Your task to perform on an android device: change keyboard looks Image 0: 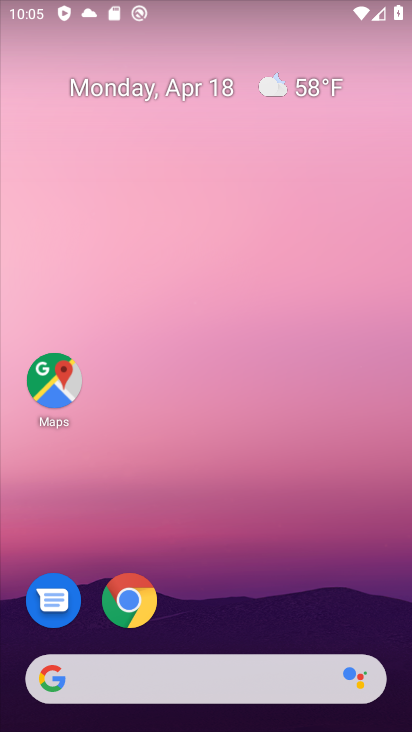
Step 0: drag from (241, 542) to (259, 9)
Your task to perform on an android device: change keyboard looks Image 1: 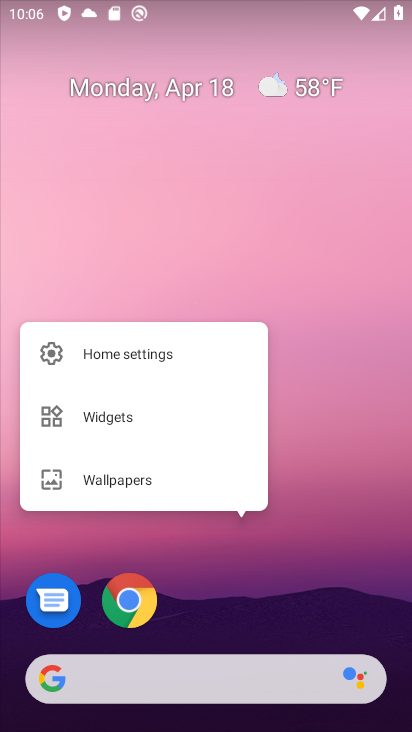
Step 1: drag from (240, 593) to (207, 10)
Your task to perform on an android device: change keyboard looks Image 2: 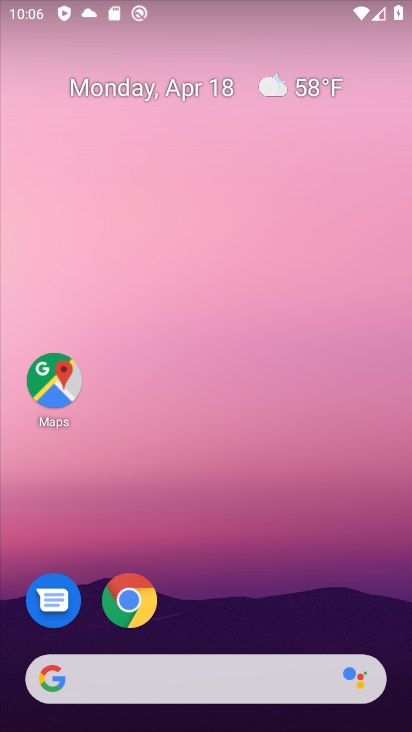
Step 2: drag from (247, 530) to (57, 13)
Your task to perform on an android device: change keyboard looks Image 3: 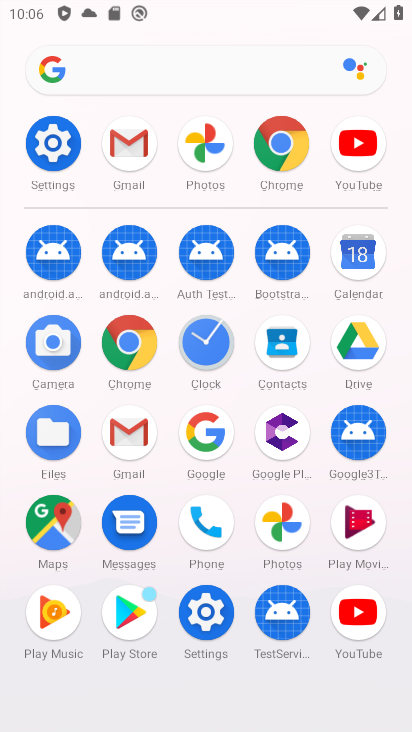
Step 3: click (51, 150)
Your task to perform on an android device: change keyboard looks Image 4: 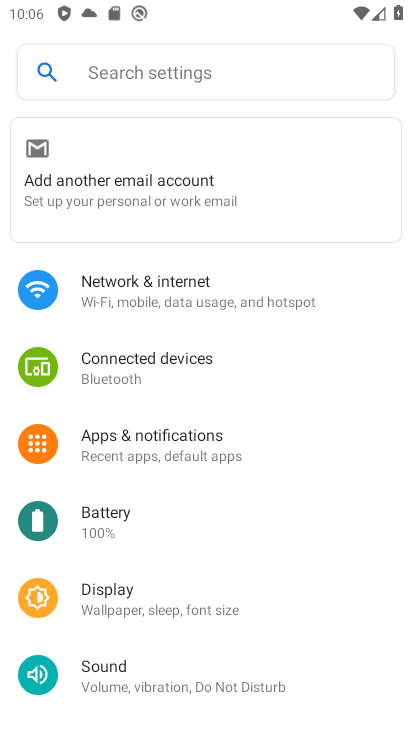
Step 4: drag from (255, 564) to (257, 71)
Your task to perform on an android device: change keyboard looks Image 5: 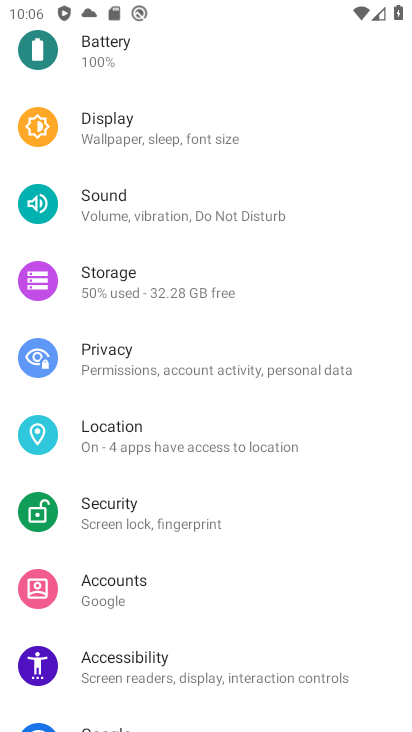
Step 5: drag from (227, 632) to (222, 134)
Your task to perform on an android device: change keyboard looks Image 6: 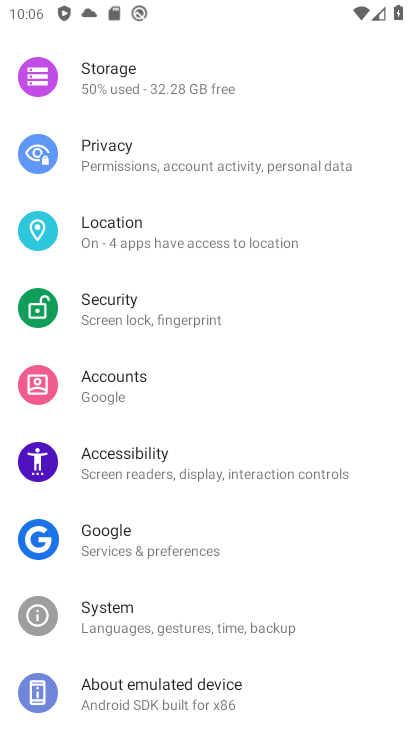
Step 6: click (105, 608)
Your task to perform on an android device: change keyboard looks Image 7: 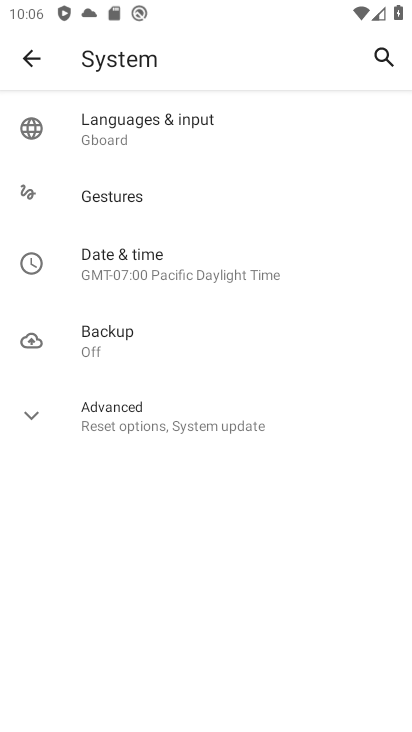
Step 7: click (104, 122)
Your task to perform on an android device: change keyboard looks Image 8: 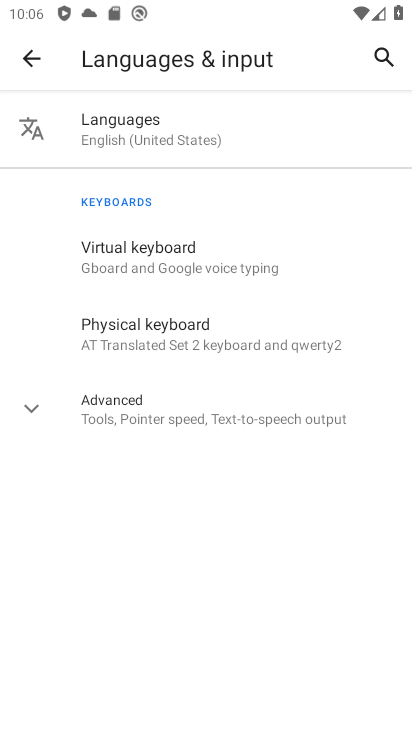
Step 8: click (105, 246)
Your task to perform on an android device: change keyboard looks Image 9: 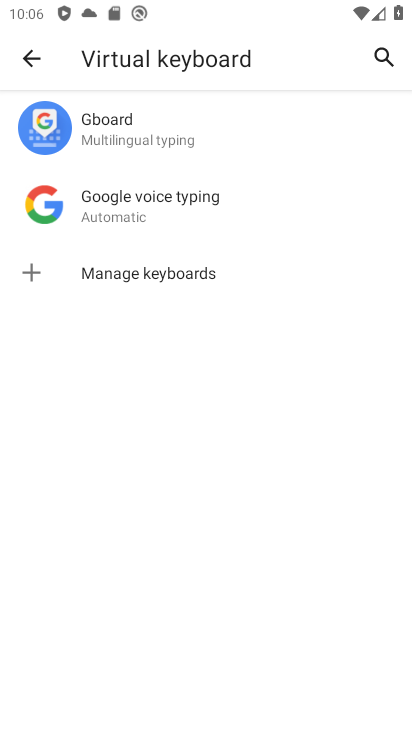
Step 9: click (100, 125)
Your task to perform on an android device: change keyboard looks Image 10: 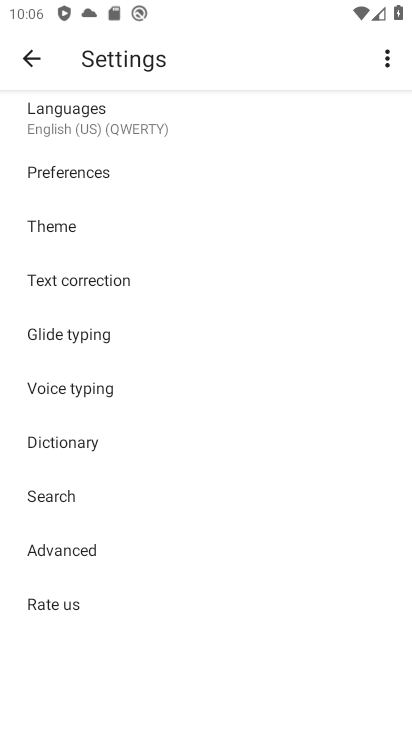
Step 10: click (45, 228)
Your task to perform on an android device: change keyboard looks Image 11: 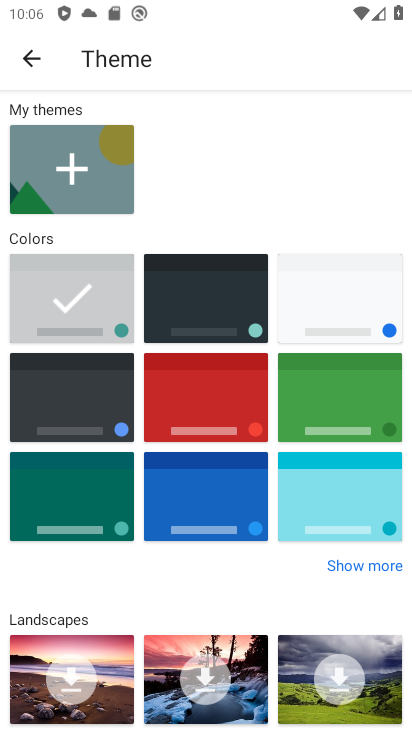
Step 11: click (65, 487)
Your task to perform on an android device: change keyboard looks Image 12: 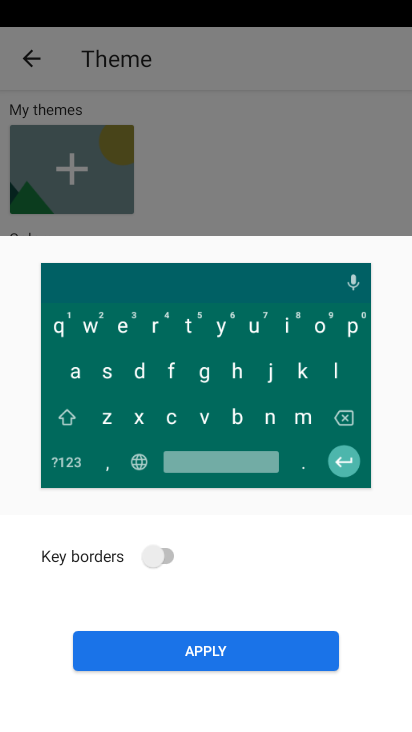
Step 12: click (200, 648)
Your task to perform on an android device: change keyboard looks Image 13: 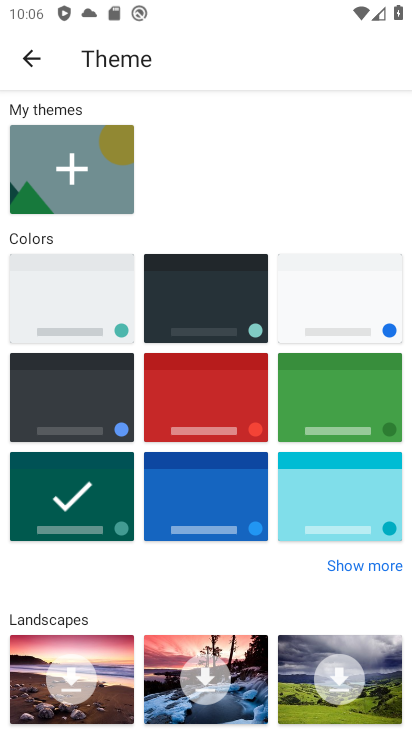
Step 13: task complete